Your task to perform on an android device: What is the news today? Image 0: 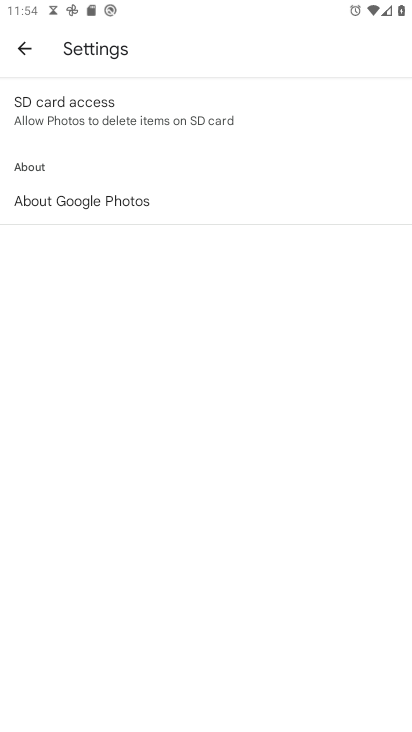
Step 0: press home button
Your task to perform on an android device: What is the news today? Image 1: 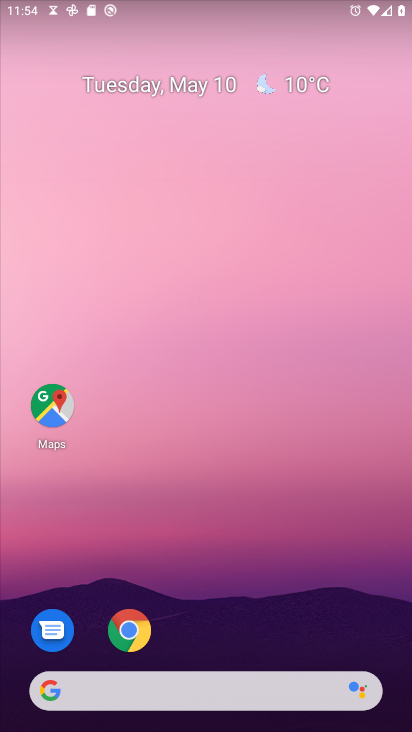
Step 1: click (176, 685)
Your task to perform on an android device: What is the news today? Image 2: 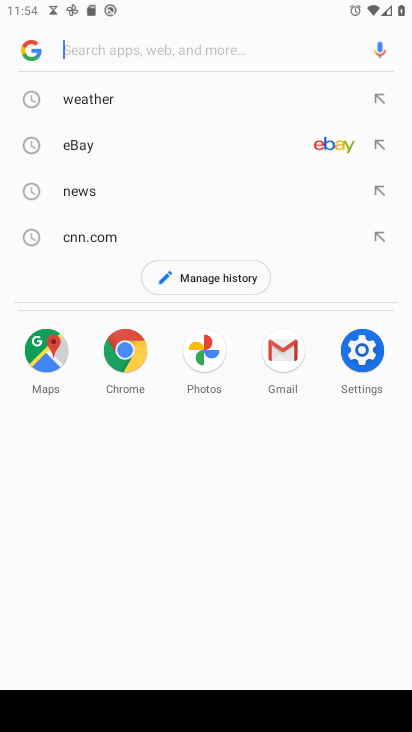
Step 2: type "news today"
Your task to perform on an android device: What is the news today? Image 3: 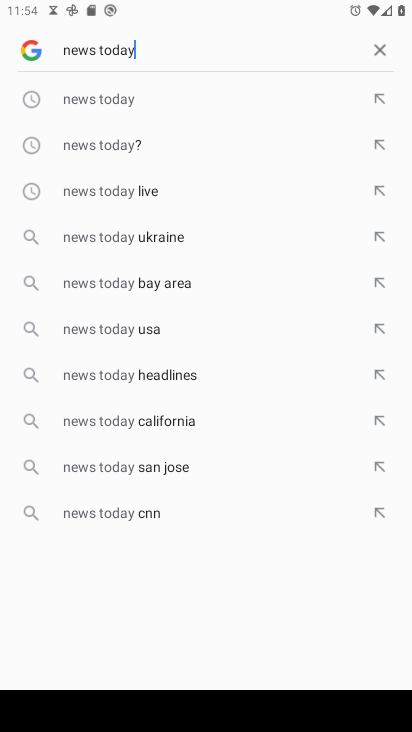
Step 3: click (134, 98)
Your task to perform on an android device: What is the news today? Image 4: 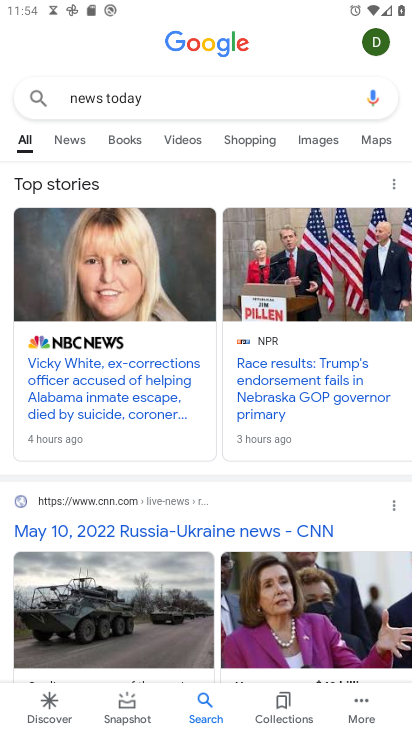
Step 4: click (75, 136)
Your task to perform on an android device: What is the news today? Image 5: 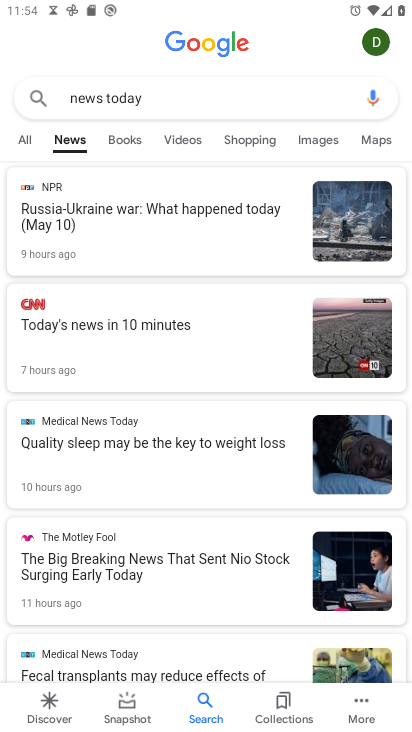
Step 5: task complete